Your task to perform on an android device: Open the calendar app, open the side menu, and click the "Day" option Image 0: 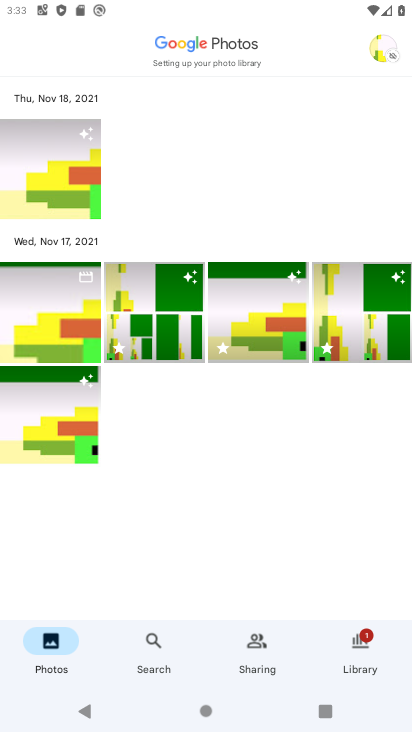
Step 0: press home button
Your task to perform on an android device: Open the calendar app, open the side menu, and click the "Day" option Image 1: 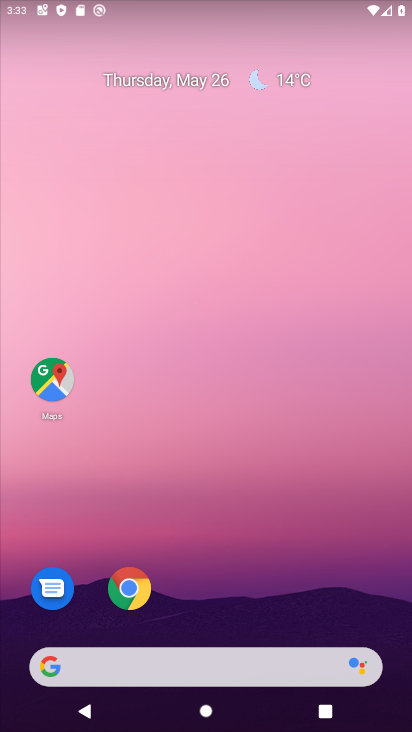
Step 1: drag from (246, 607) to (265, 245)
Your task to perform on an android device: Open the calendar app, open the side menu, and click the "Day" option Image 2: 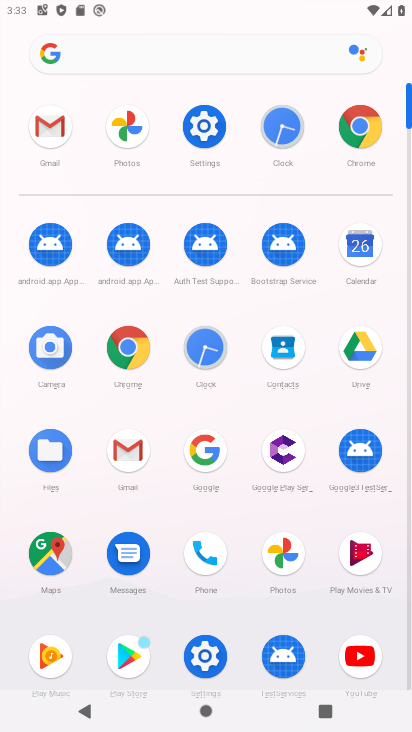
Step 2: click (350, 262)
Your task to perform on an android device: Open the calendar app, open the side menu, and click the "Day" option Image 3: 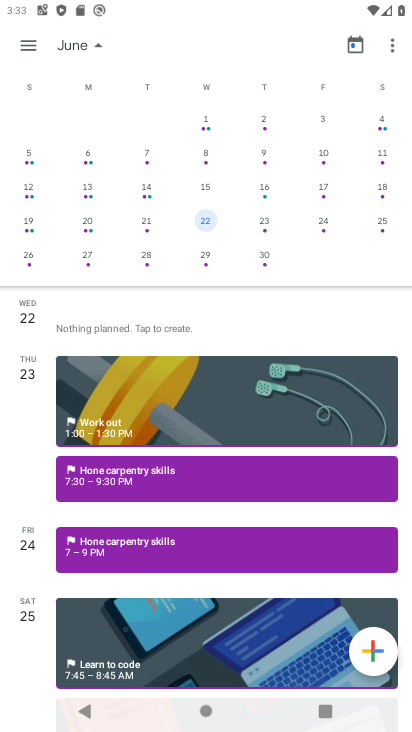
Step 3: click (18, 47)
Your task to perform on an android device: Open the calendar app, open the side menu, and click the "Day" option Image 4: 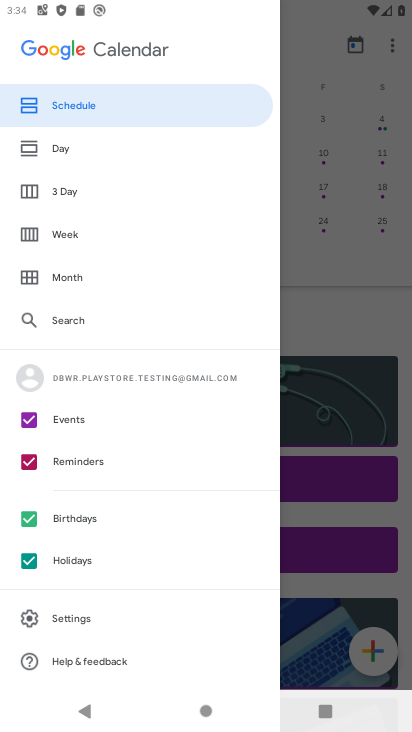
Step 4: click (76, 146)
Your task to perform on an android device: Open the calendar app, open the side menu, and click the "Day" option Image 5: 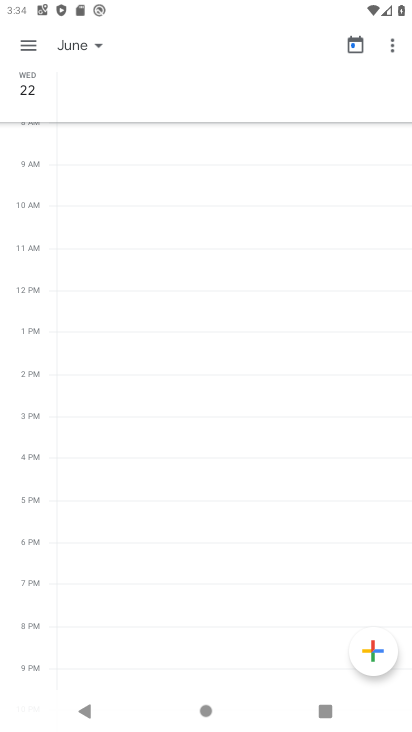
Step 5: task complete